Your task to perform on an android device: Set the phone to "Do not disturb". Image 0: 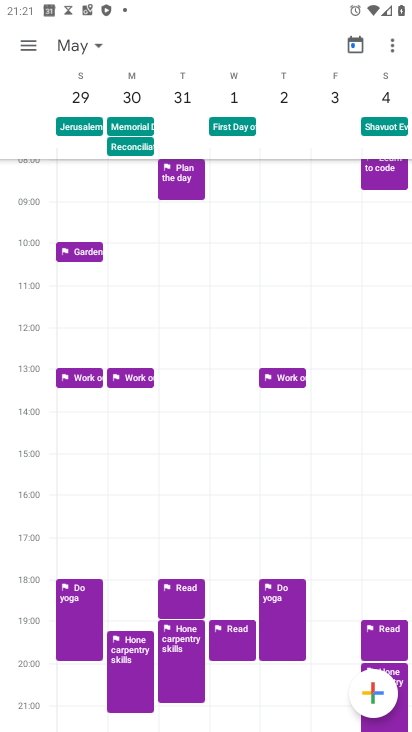
Step 0: press home button
Your task to perform on an android device: Set the phone to "Do not disturb". Image 1: 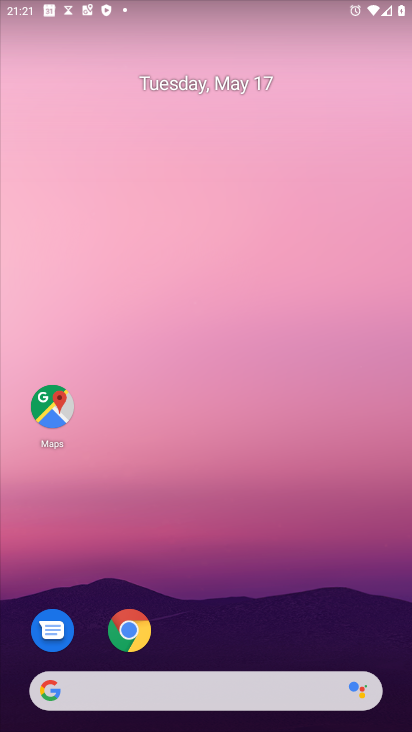
Step 1: drag from (223, 562) to (231, 194)
Your task to perform on an android device: Set the phone to "Do not disturb". Image 2: 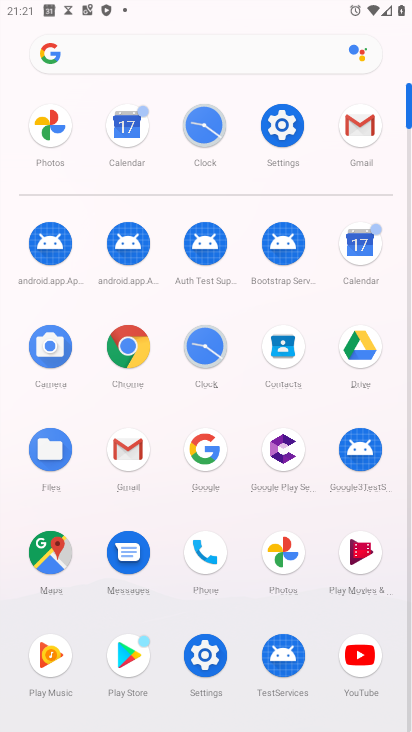
Step 2: click (291, 143)
Your task to perform on an android device: Set the phone to "Do not disturb". Image 3: 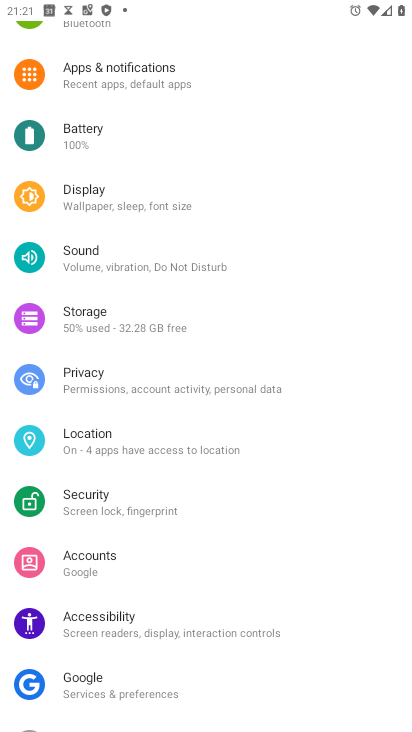
Step 3: click (176, 266)
Your task to perform on an android device: Set the phone to "Do not disturb". Image 4: 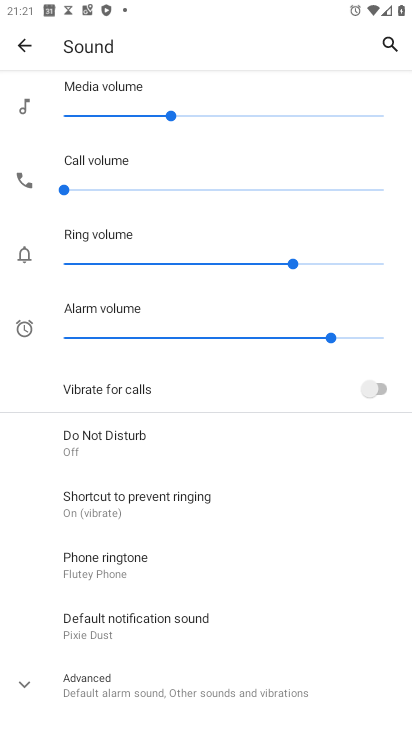
Step 4: click (103, 449)
Your task to perform on an android device: Set the phone to "Do not disturb". Image 5: 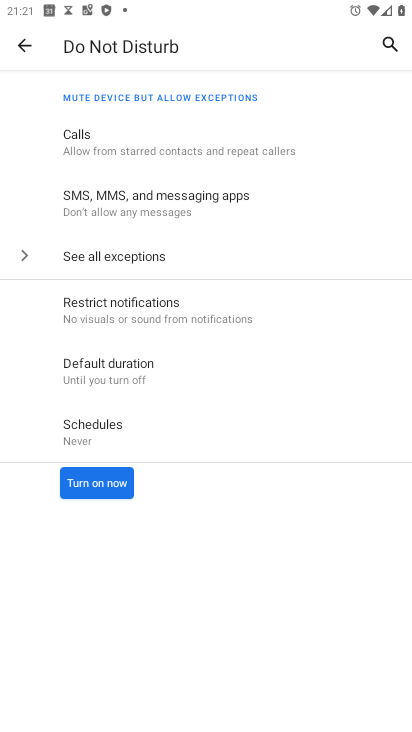
Step 5: click (87, 486)
Your task to perform on an android device: Set the phone to "Do not disturb". Image 6: 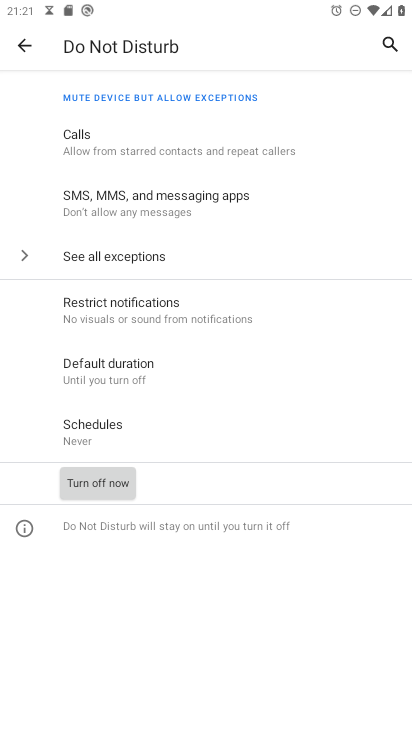
Step 6: task complete